Your task to perform on an android device: Open the map Image 0: 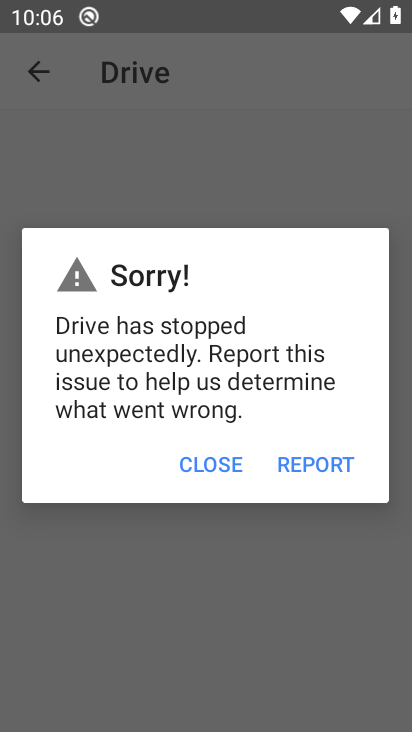
Step 0: press back button
Your task to perform on an android device: Open the map Image 1: 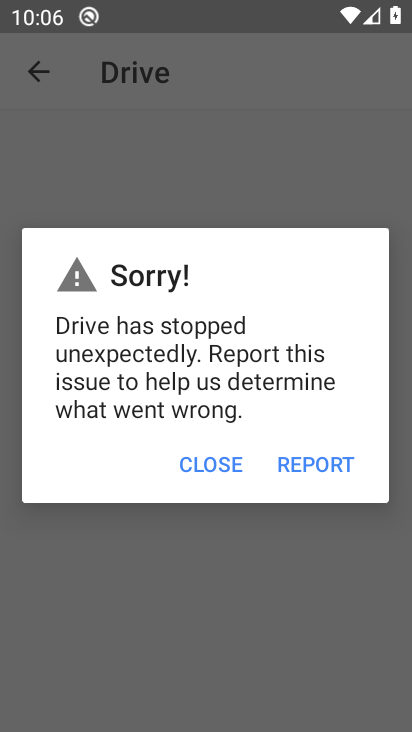
Step 1: press home button
Your task to perform on an android device: Open the map Image 2: 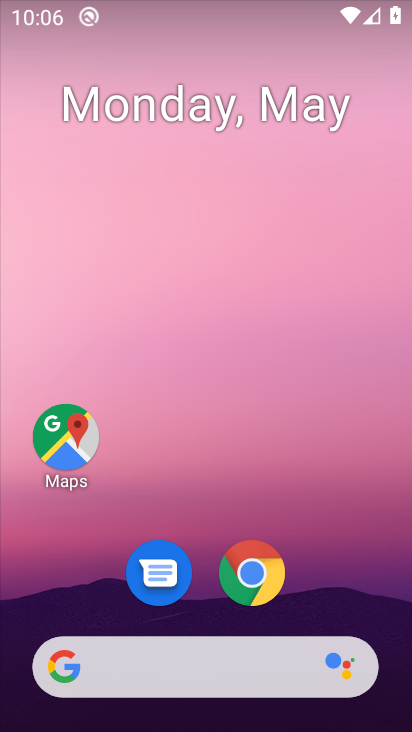
Step 2: click (74, 443)
Your task to perform on an android device: Open the map Image 3: 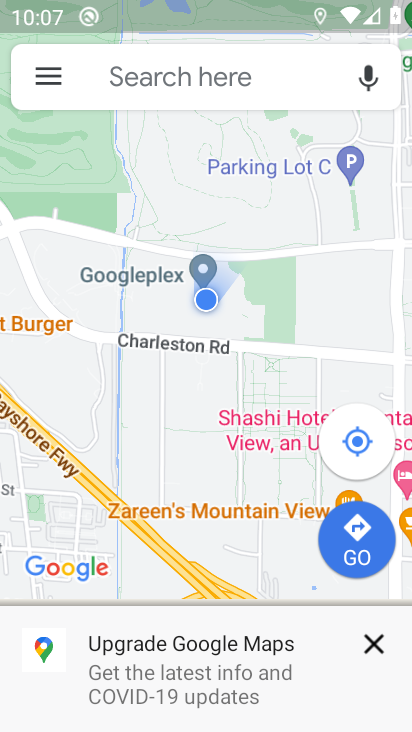
Step 3: task complete